Your task to perform on an android device: open app "Paramount+ | Peak Streaming" (install if not already installed) Image 0: 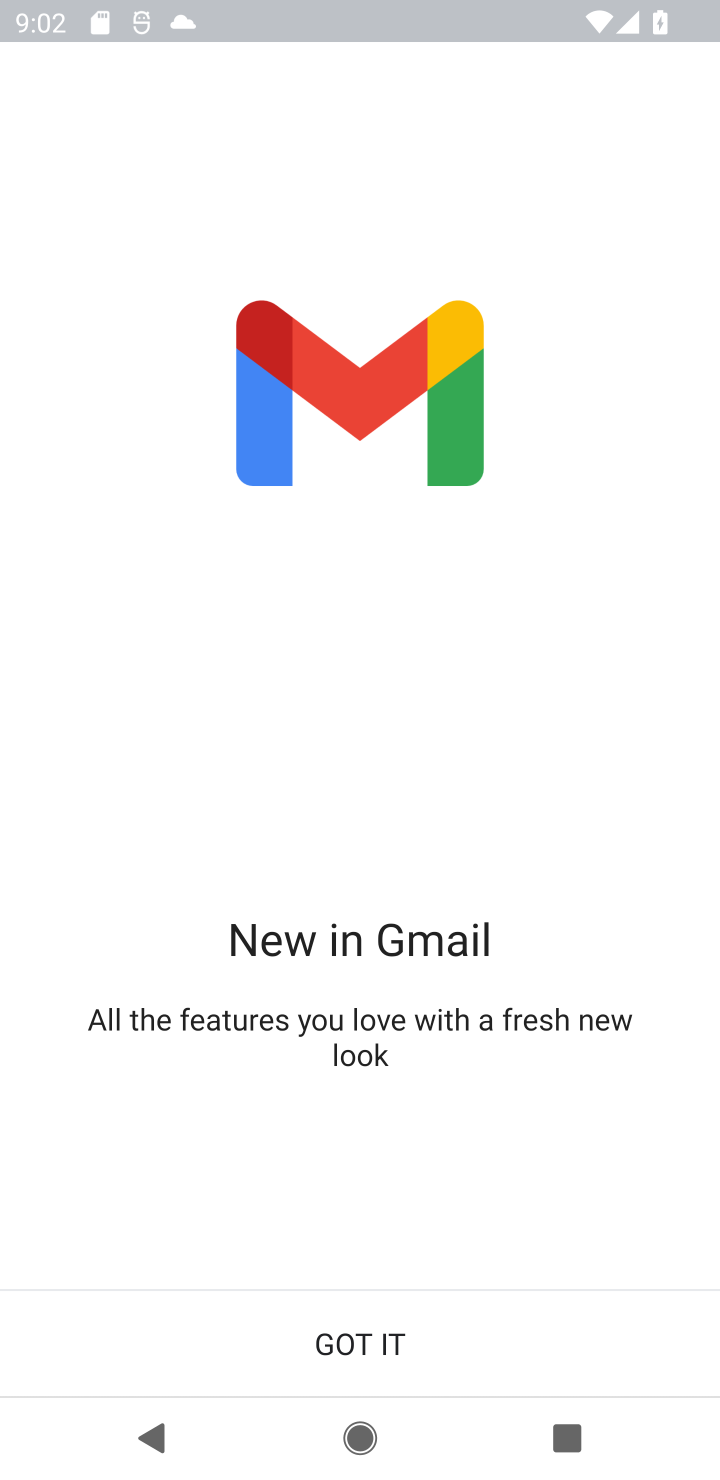
Step 0: press home button
Your task to perform on an android device: open app "Paramount+ | Peak Streaming" (install if not already installed) Image 1: 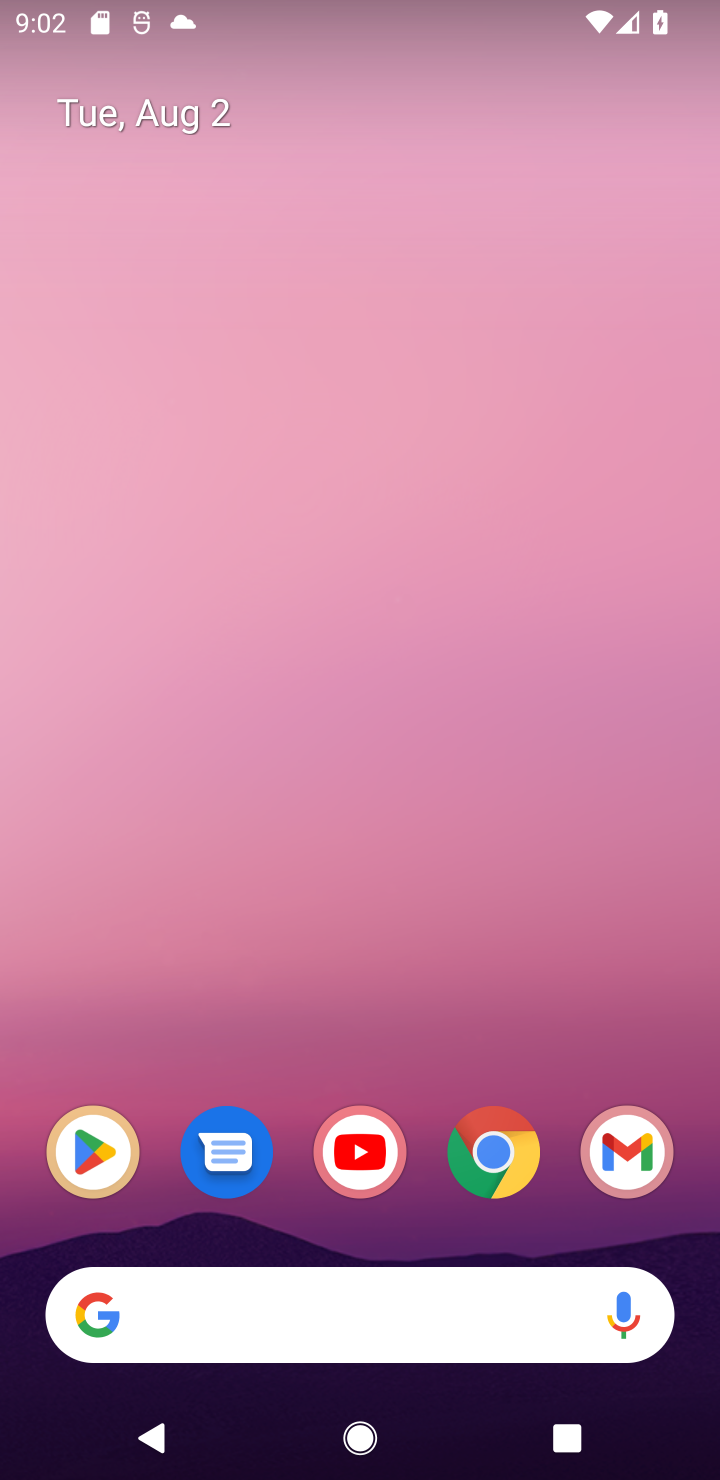
Step 1: click (73, 1139)
Your task to perform on an android device: open app "Paramount+ | Peak Streaming" (install if not already installed) Image 2: 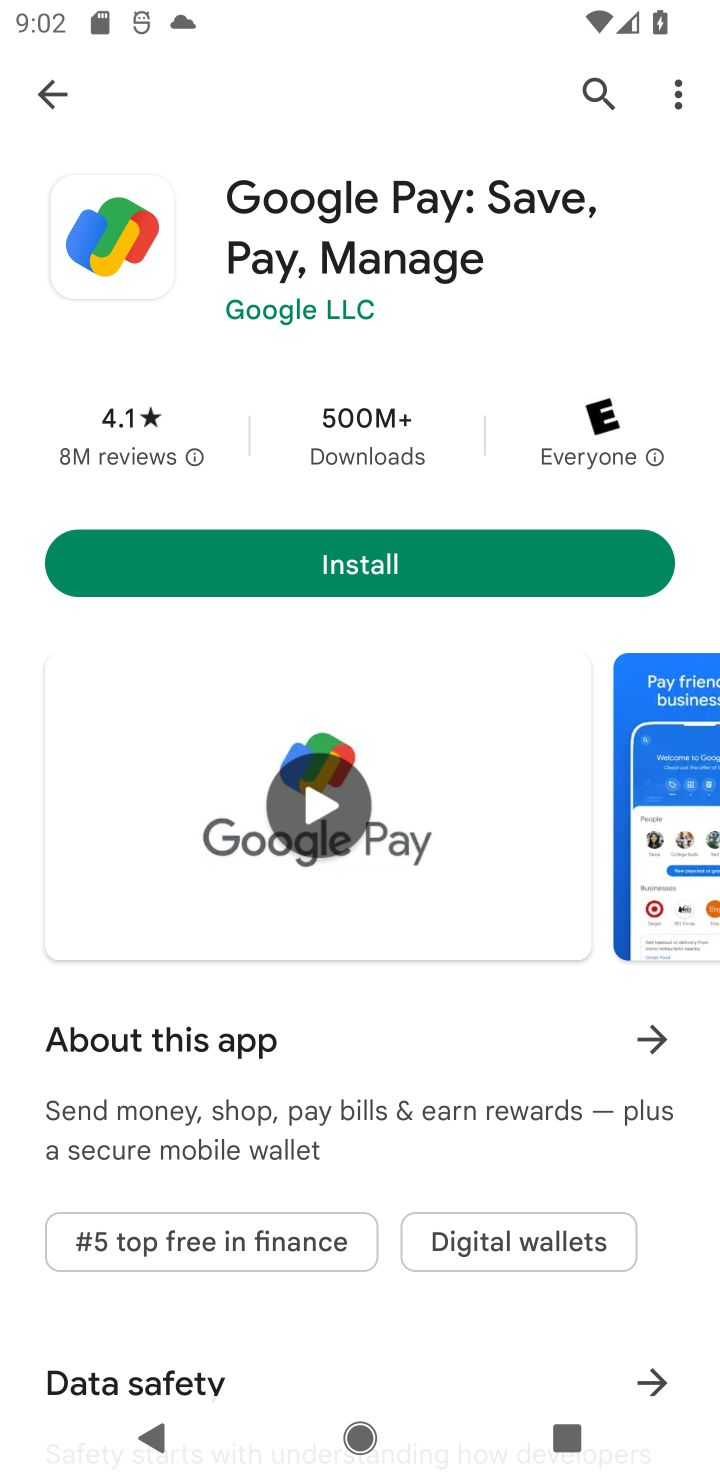
Step 2: click (42, 82)
Your task to perform on an android device: open app "Paramount+ | Peak Streaming" (install if not already installed) Image 3: 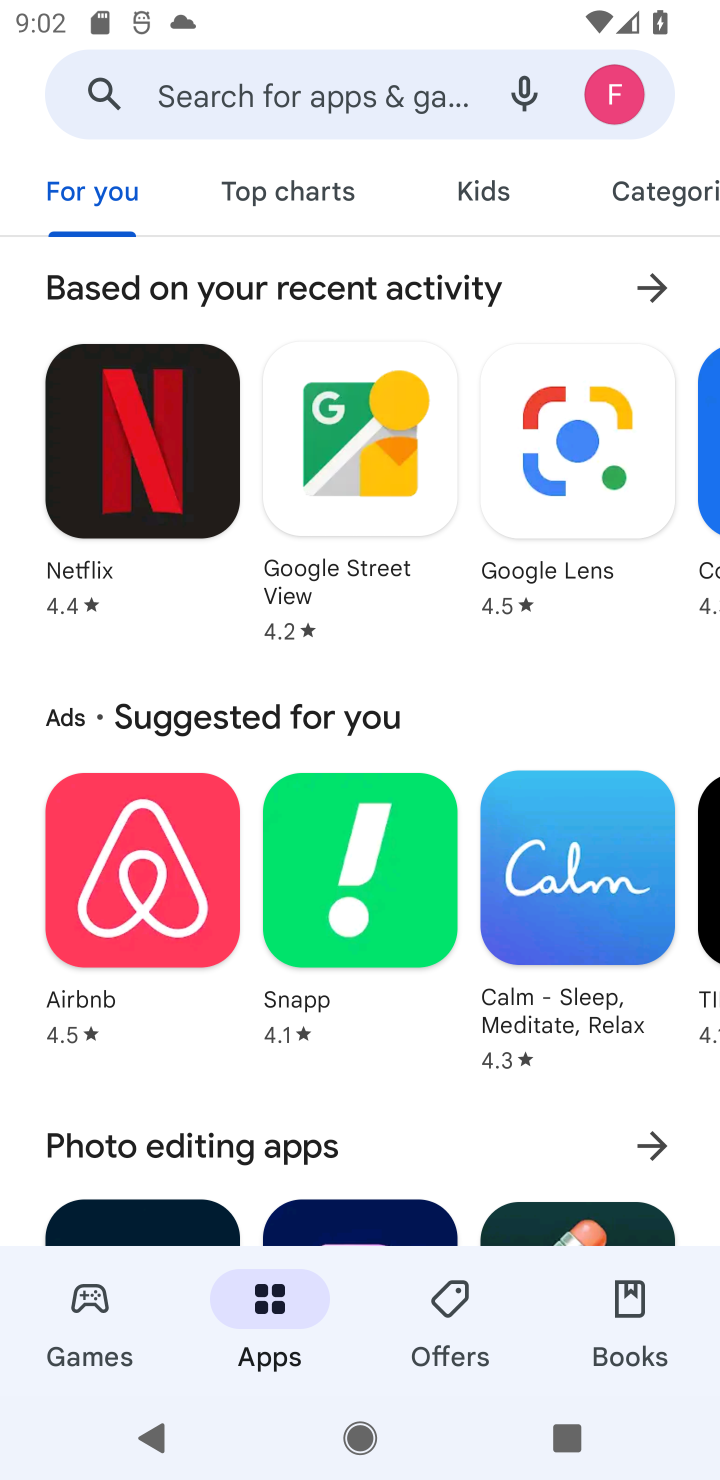
Step 3: click (335, 82)
Your task to perform on an android device: open app "Paramount+ | Peak Streaming" (install if not already installed) Image 4: 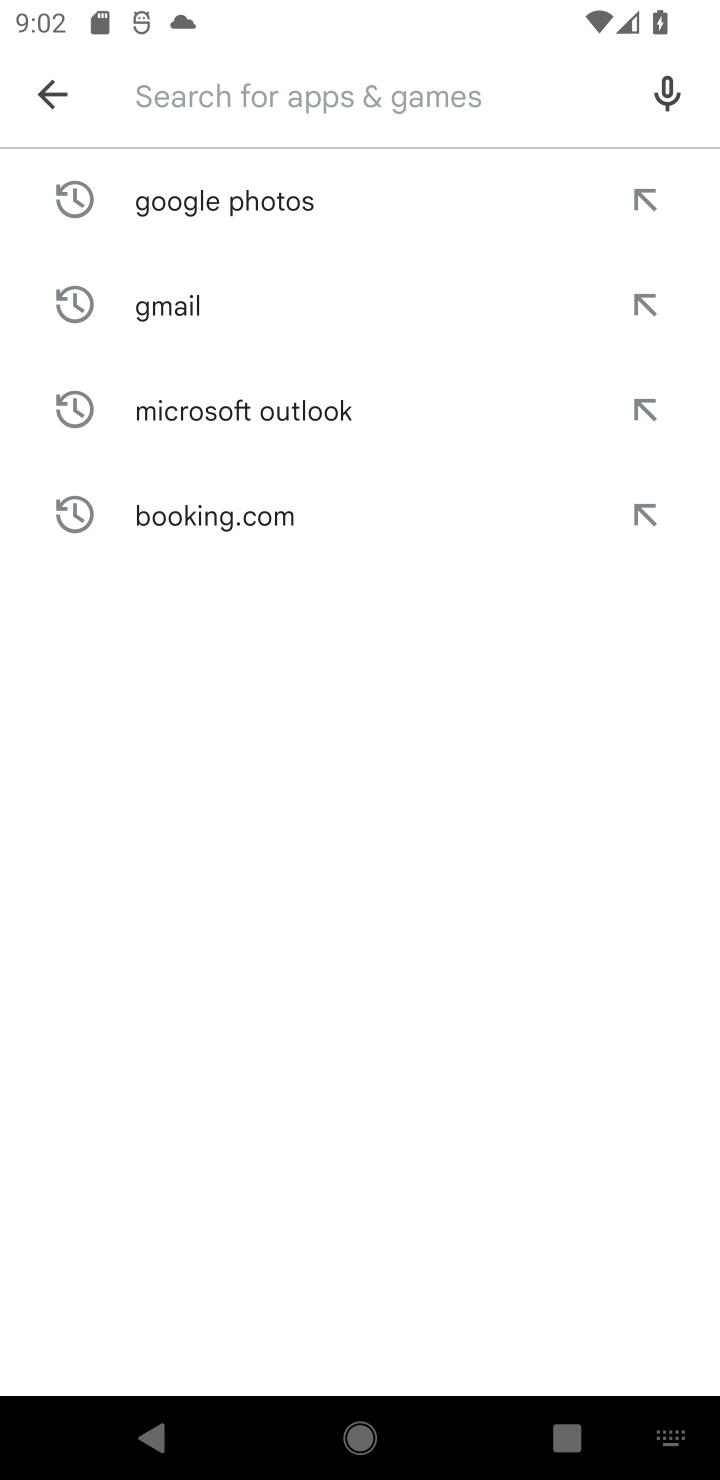
Step 4: type "Paramount+ | Peak Streaming"
Your task to perform on an android device: open app "Paramount+ | Peak Streaming" (install if not already installed) Image 5: 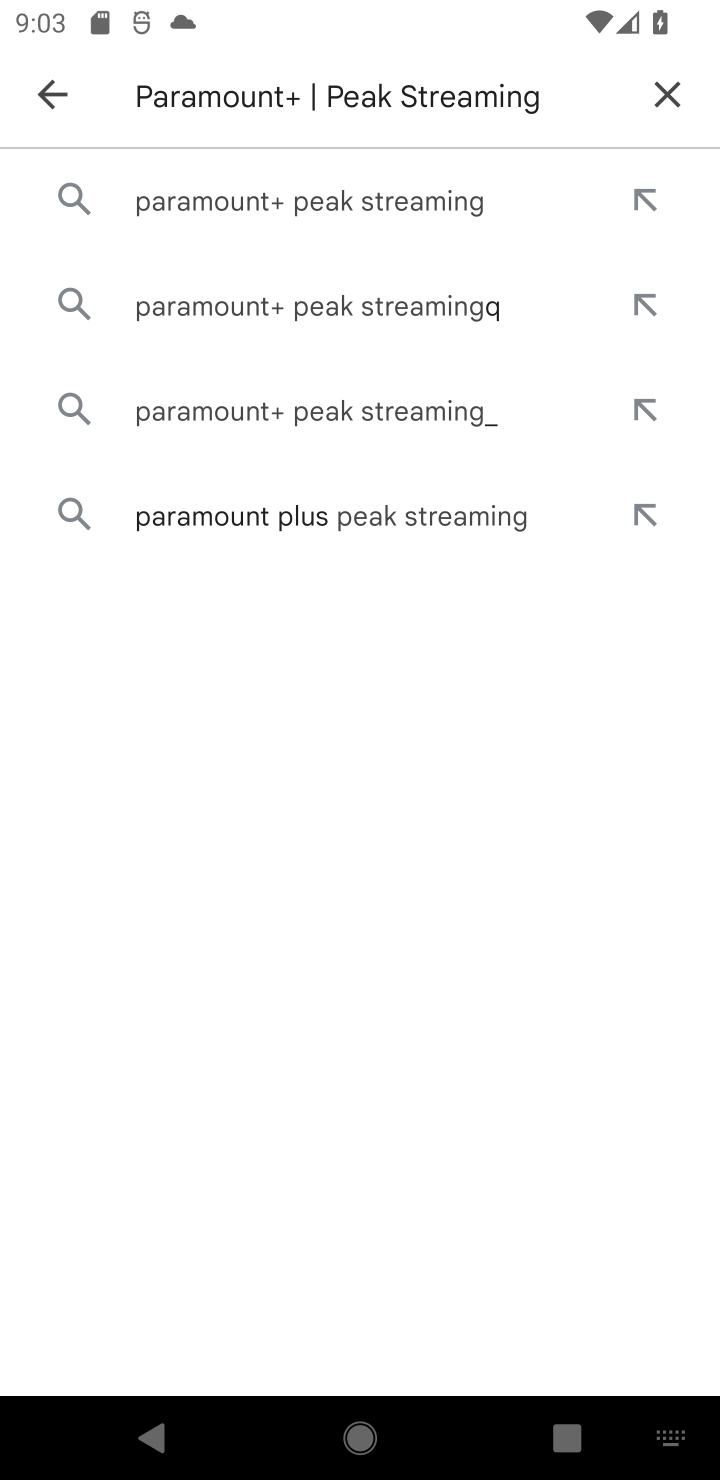
Step 5: click (414, 205)
Your task to perform on an android device: open app "Paramount+ | Peak Streaming" (install if not already installed) Image 6: 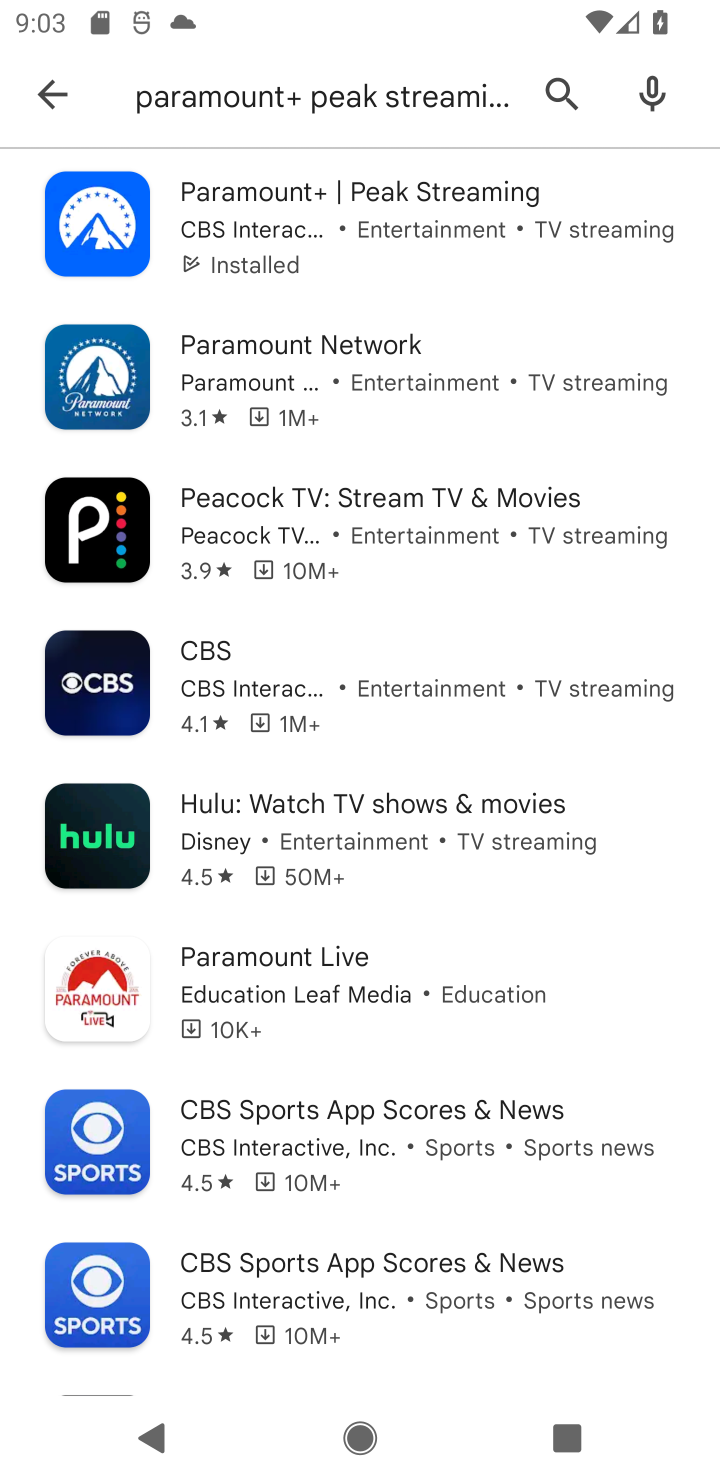
Step 6: click (414, 205)
Your task to perform on an android device: open app "Paramount+ | Peak Streaming" (install if not already installed) Image 7: 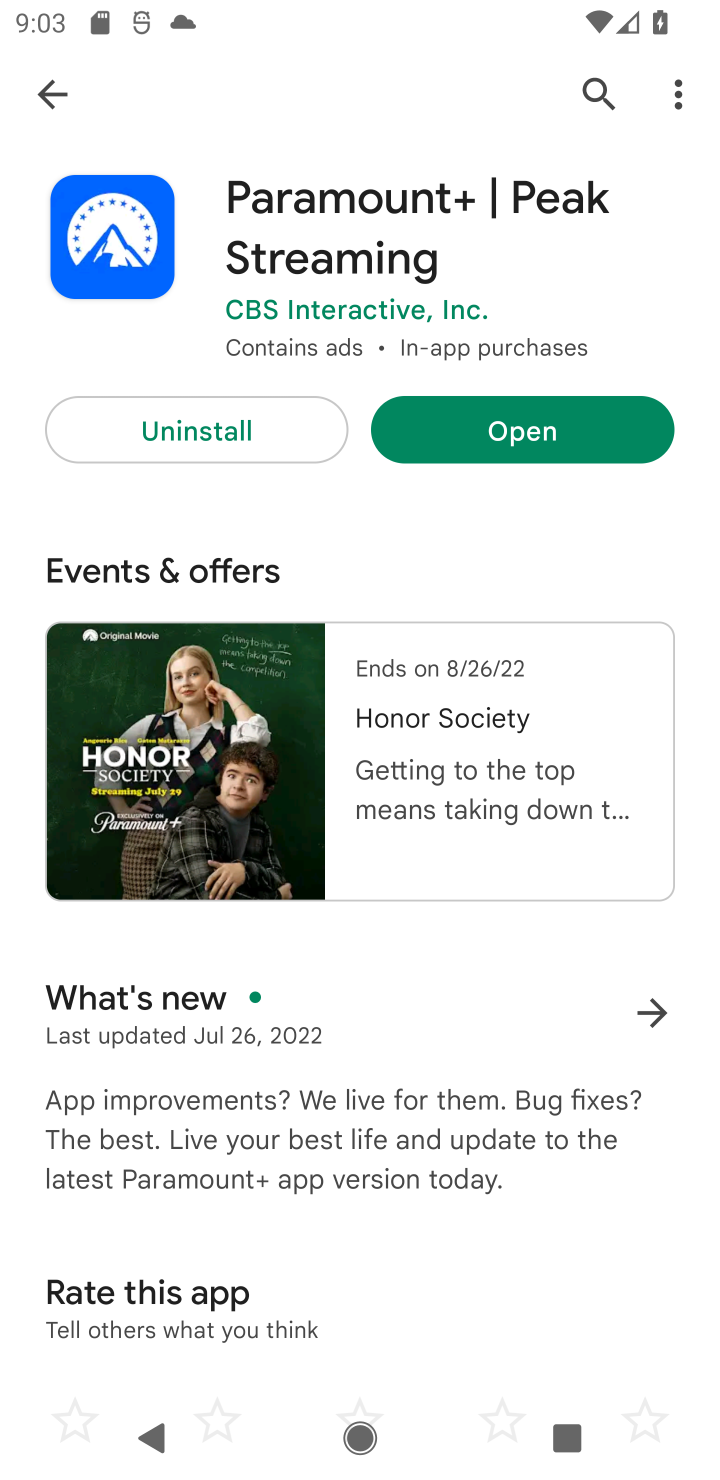
Step 7: click (475, 422)
Your task to perform on an android device: open app "Paramount+ | Peak Streaming" (install if not already installed) Image 8: 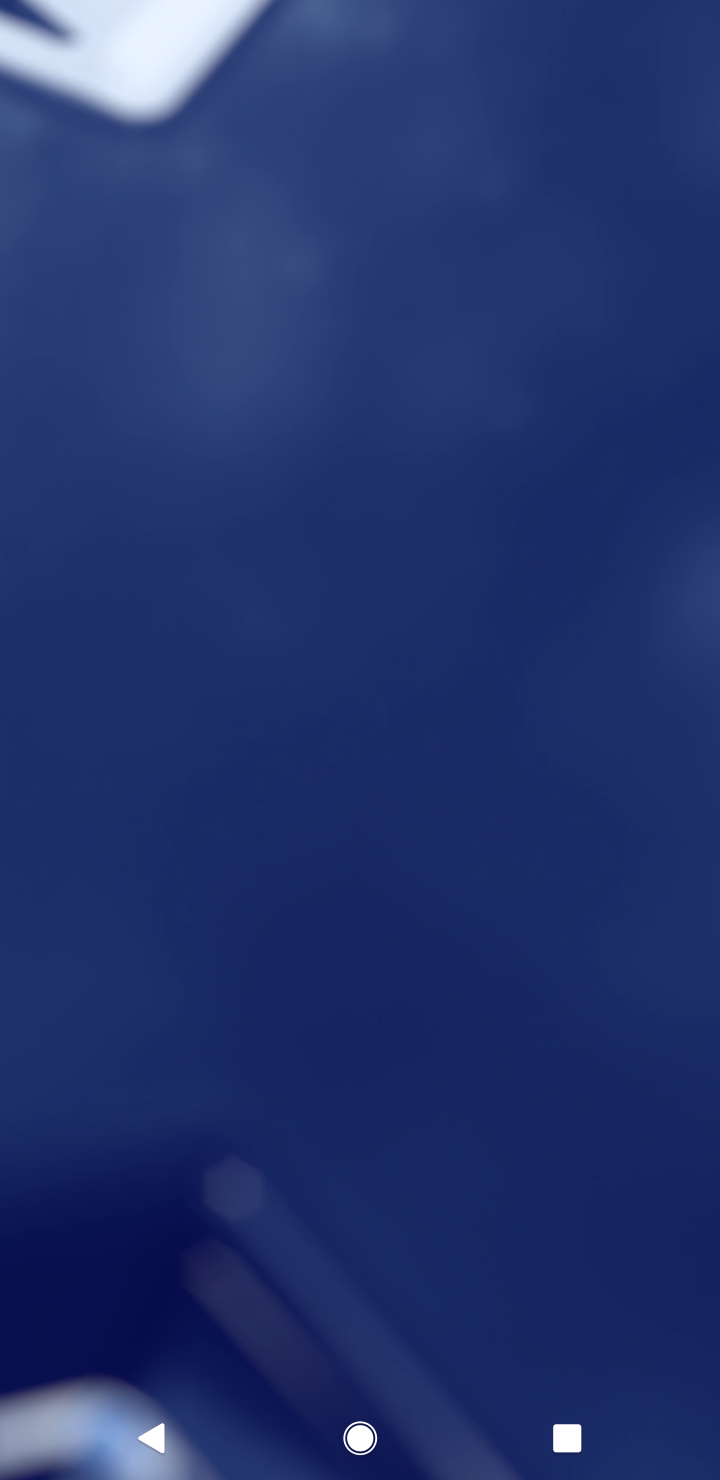
Step 8: task complete